Your task to perform on an android device: move an email to a new category in the gmail app Image 0: 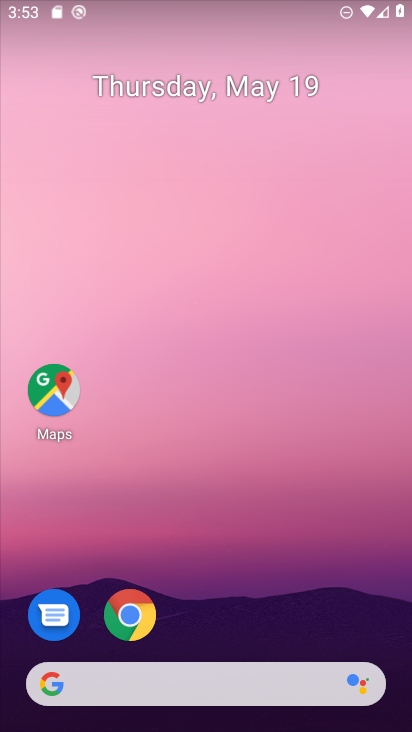
Step 0: drag from (321, 620) to (305, 171)
Your task to perform on an android device: move an email to a new category in the gmail app Image 1: 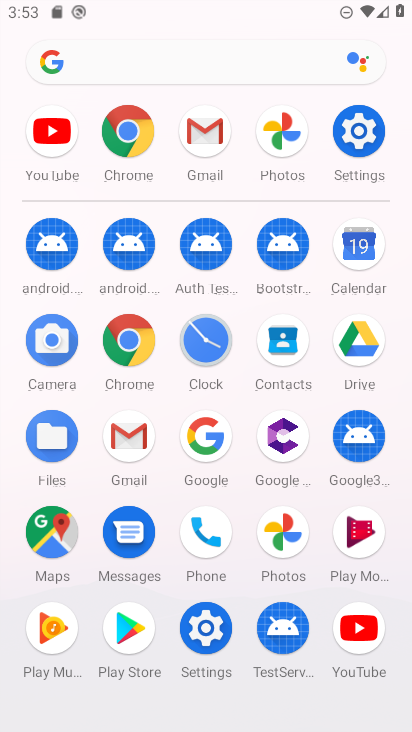
Step 1: click (214, 143)
Your task to perform on an android device: move an email to a new category in the gmail app Image 2: 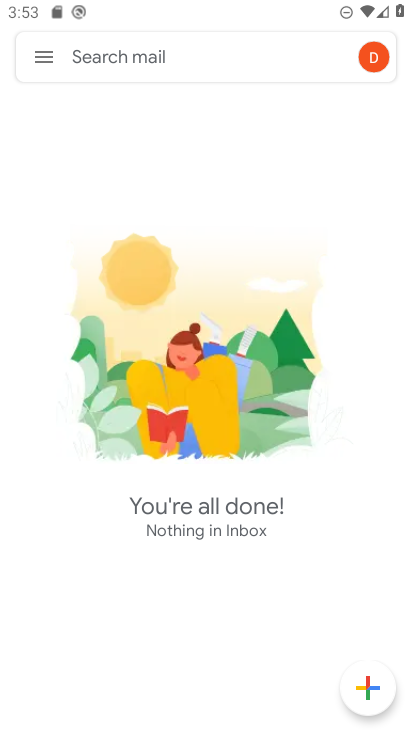
Step 2: task complete